Your task to perform on an android device: Go to Android settings Image 0: 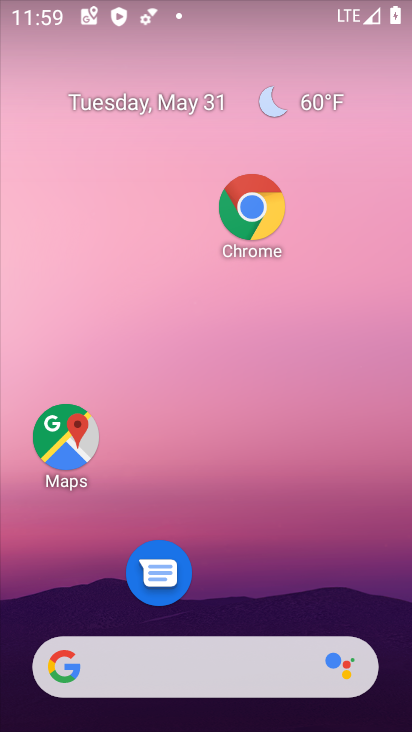
Step 0: drag from (205, 603) to (198, 235)
Your task to perform on an android device: Go to Android settings Image 1: 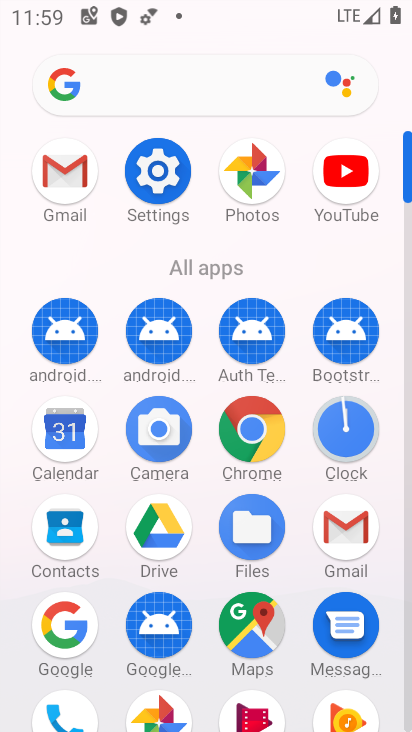
Step 1: click (177, 183)
Your task to perform on an android device: Go to Android settings Image 2: 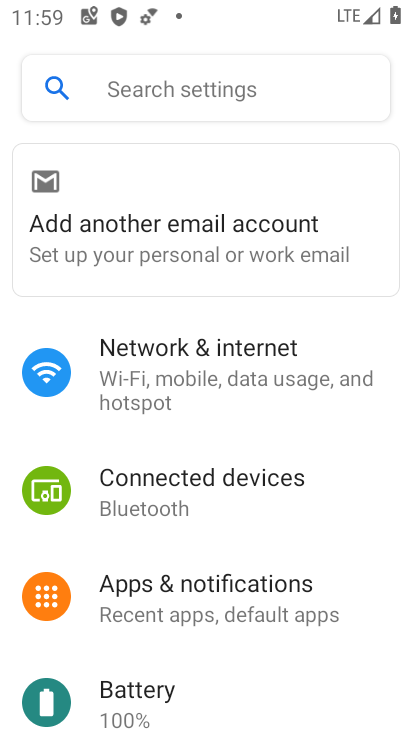
Step 2: task complete